Your task to perform on an android device: Go to battery settings Image 0: 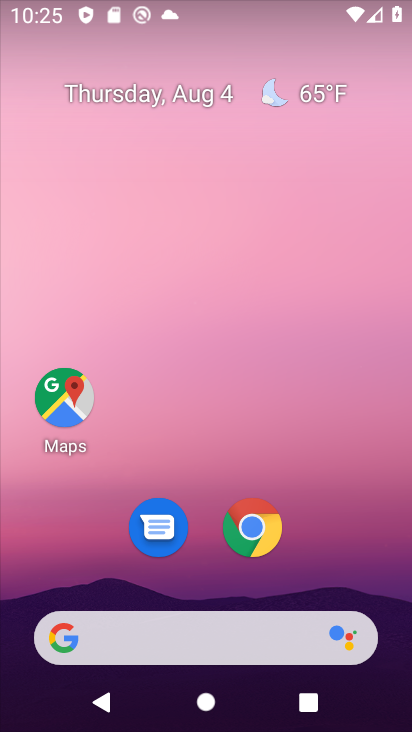
Step 0: drag from (75, 660) to (300, 7)
Your task to perform on an android device: Go to battery settings Image 1: 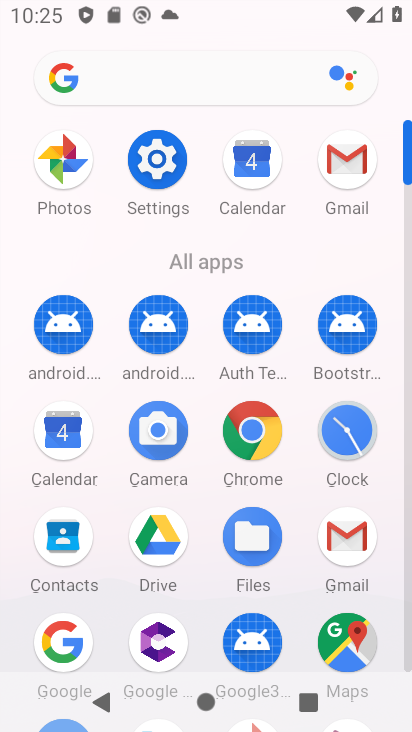
Step 1: click (159, 174)
Your task to perform on an android device: Go to battery settings Image 2: 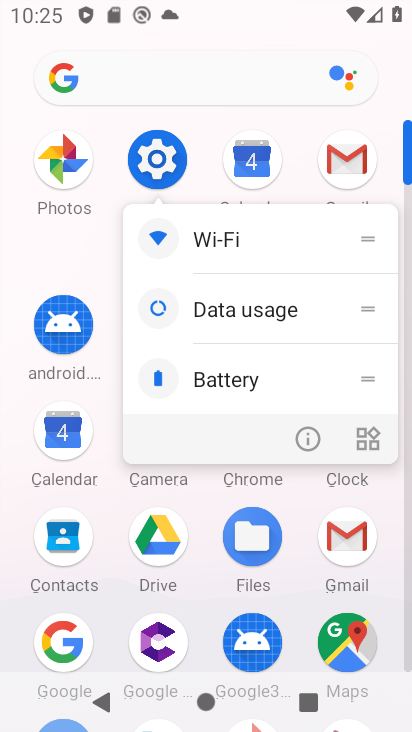
Step 2: click (159, 174)
Your task to perform on an android device: Go to battery settings Image 3: 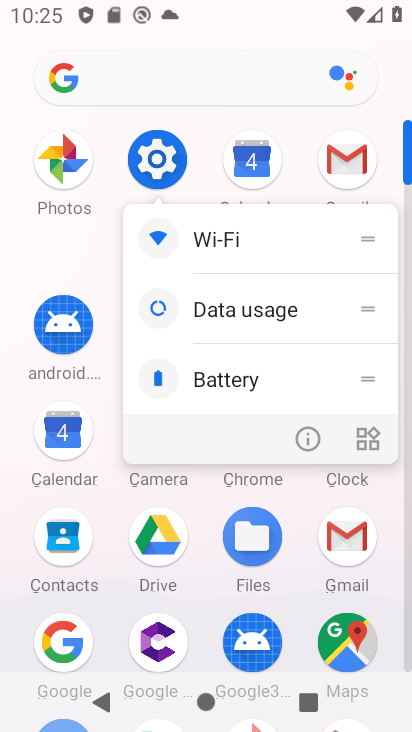
Step 3: click (159, 174)
Your task to perform on an android device: Go to battery settings Image 4: 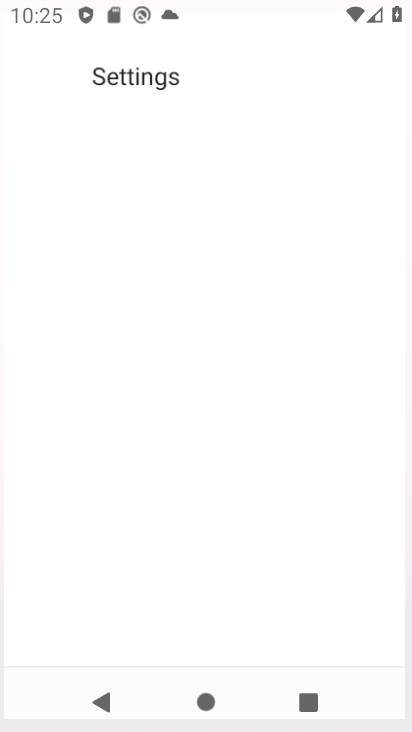
Step 4: click (159, 174)
Your task to perform on an android device: Go to battery settings Image 5: 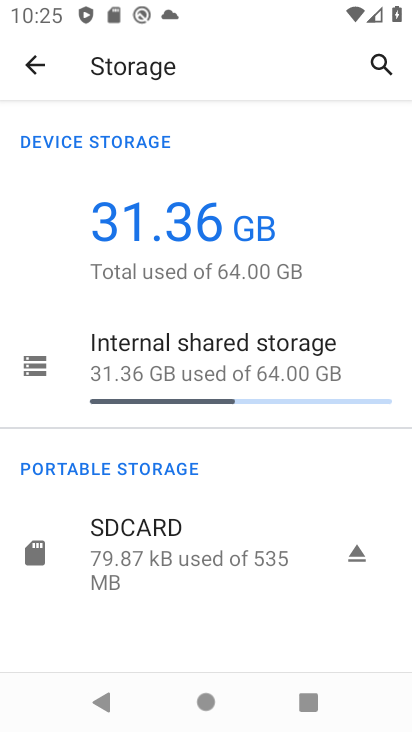
Step 5: click (47, 67)
Your task to perform on an android device: Go to battery settings Image 6: 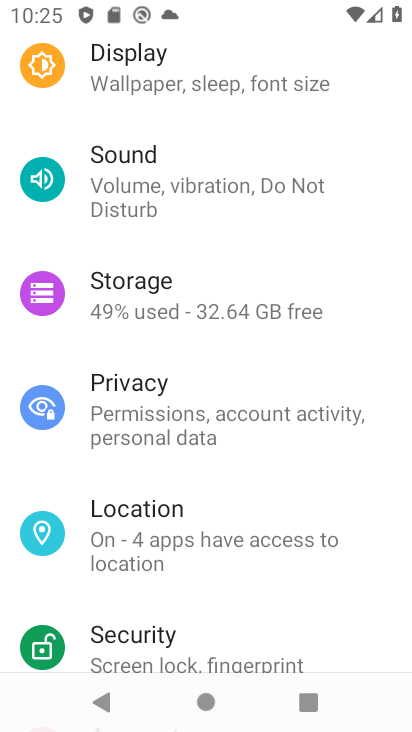
Step 6: drag from (239, 153) to (301, 728)
Your task to perform on an android device: Go to battery settings Image 7: 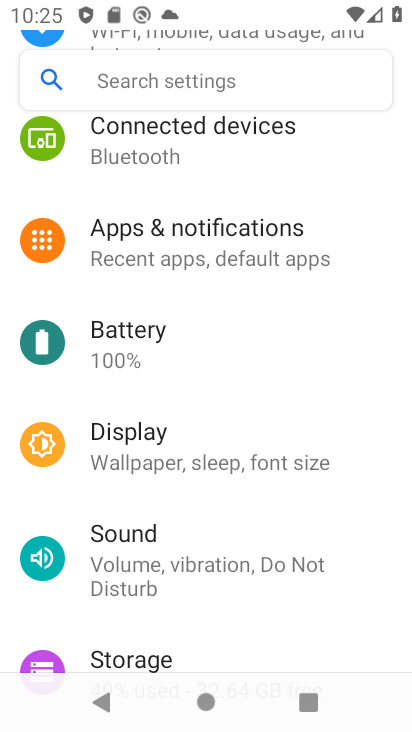
Step 7: click (130, 342)
Your task to perform on an android device: Go to battery settings Image 8: 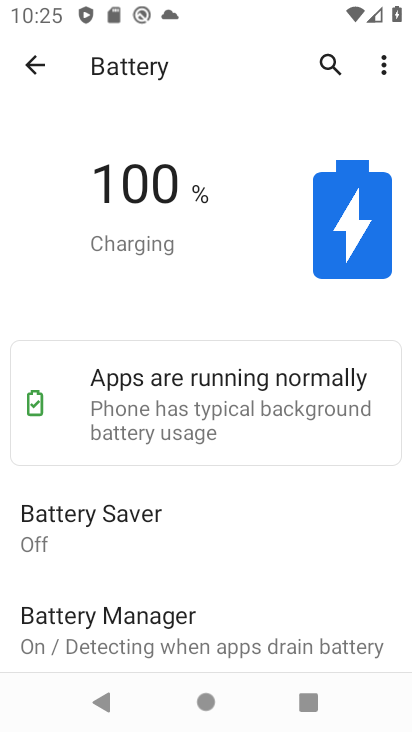
Step 8: task complete